Your task to perform on an android device: turn on bluetooth scan Image 0: 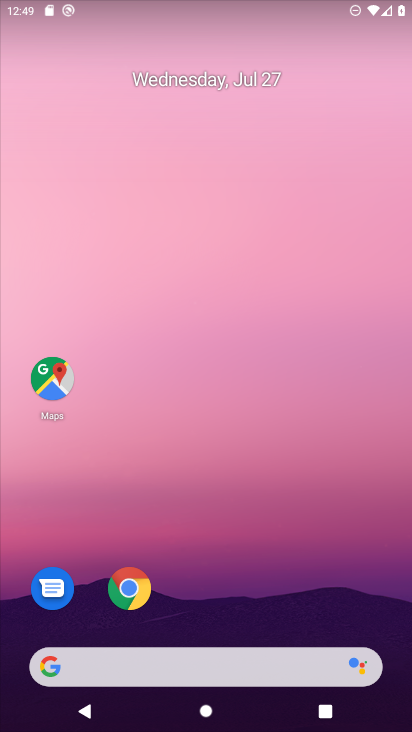
Step 0: drag from (12, 682) to (145, 222)
Your task to perform on an android device: turn on bluetooth scan Image 1: 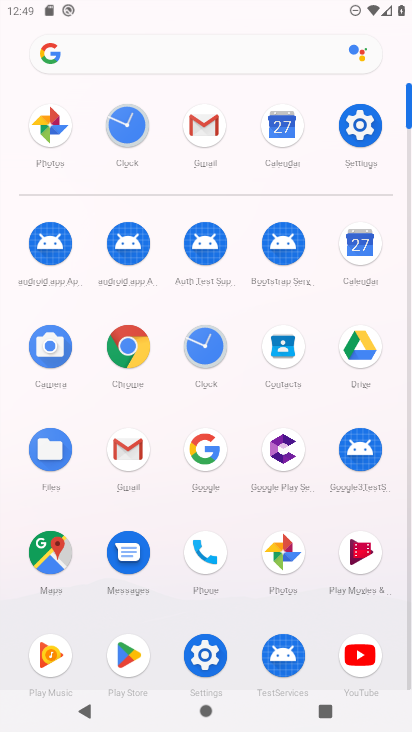
Step 1: click (208, 666)
Your task to perform on an android device: turn on bluetooth scan Image 2: 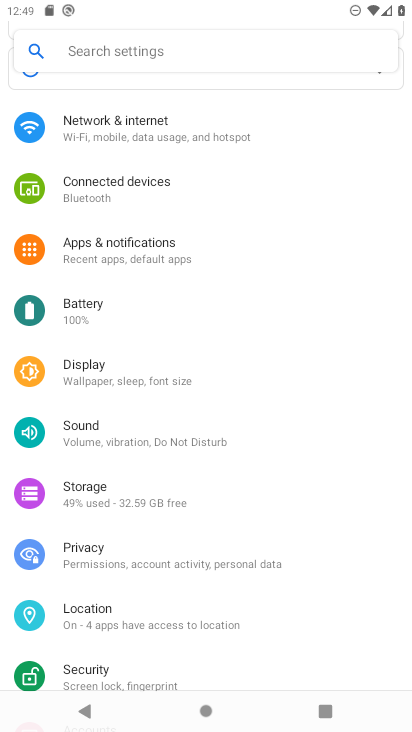
Step 2: click (127, 180)
Your task to perform on an android device: turn on bluetooth scan Image 3: 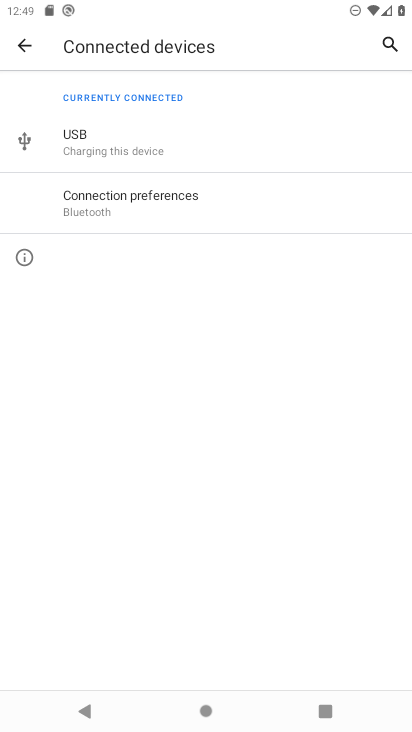
Step 3: click (108, 191)
Your task to perform on an android device: turn on bluetooth scan Image 4: 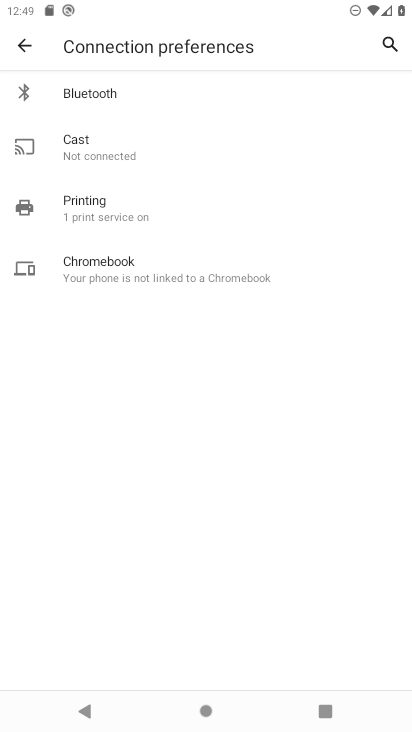
Step 4: click (68, 94)
Your task to perform on an android device: turn on bluetooth scan Image 5: 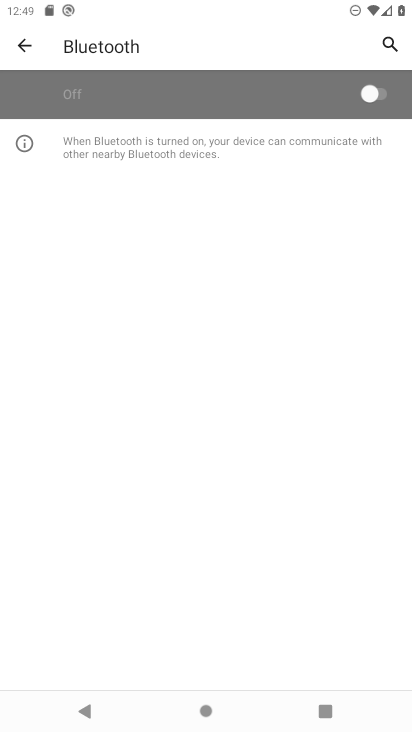
Step 5: task complete